Your task to perform on an android device: change the clock style Image 0: 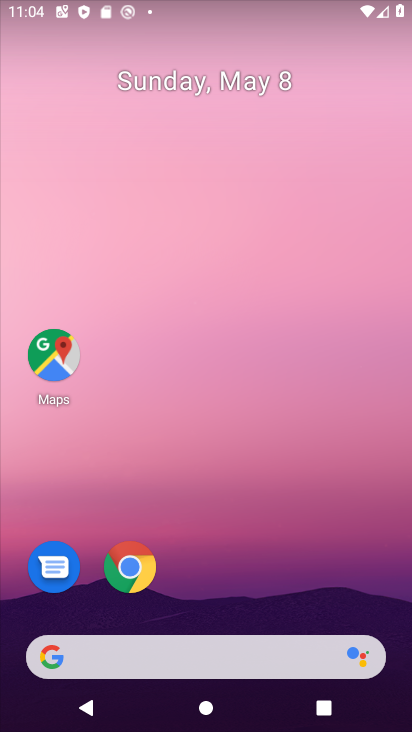
Step 0: press home button
Your task to perform on an android device: change the clock style Image 1: 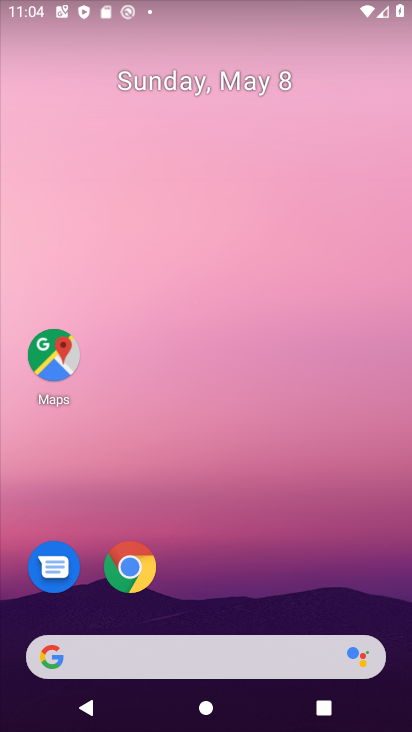
Step 1: drag from (222, 596) to (288, 66)
Your task to perform on an android device: change the clock style Image 2: 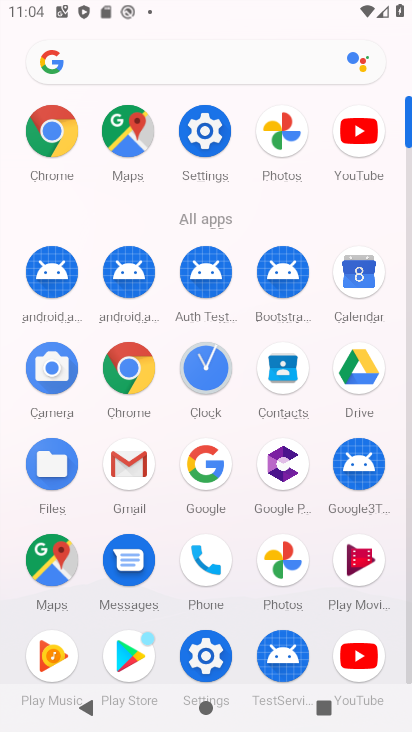
Step 2: click (203, 363)
Your task to perform on an android device: change the clock style Image 3: 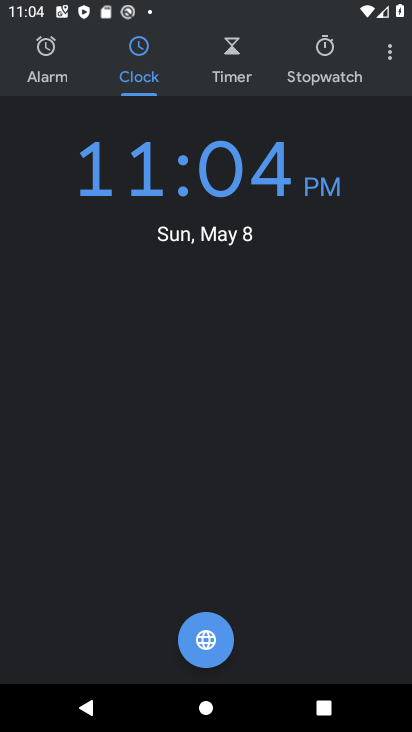
Step 3: click (385, 53)
Your task to perform on an android device: change the clock style Image 4: 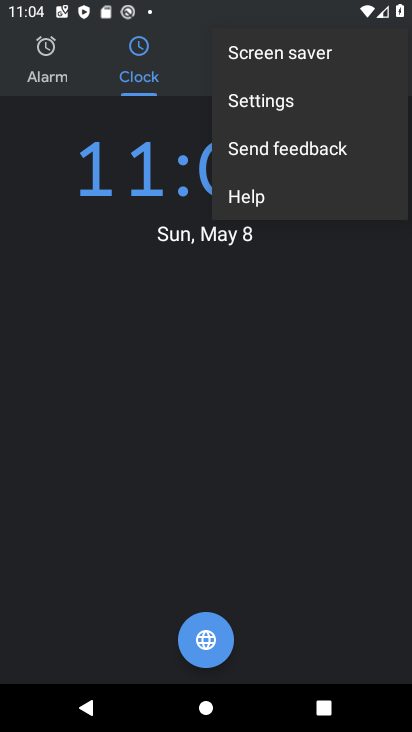
Step 4: click (298, 97)
Your task to perform on an android device: change the clock style Image 5: 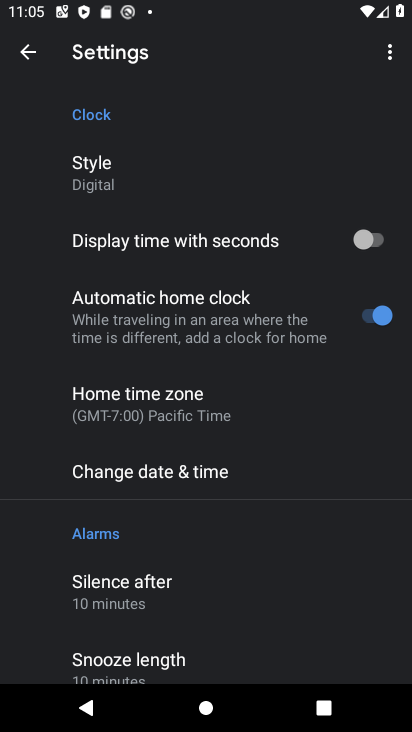
Step 5: click (131, 172)
Your task to perform on an android device: change the clock style Image 6: 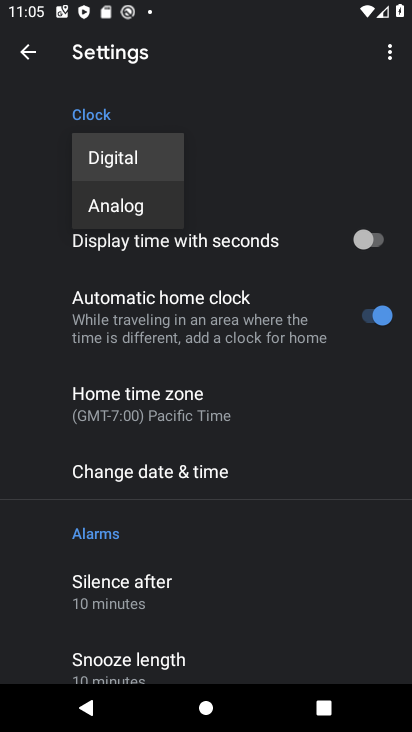
Step 6: click (152, 208)
Your task to perform on an android device: change the clock style Image 7: 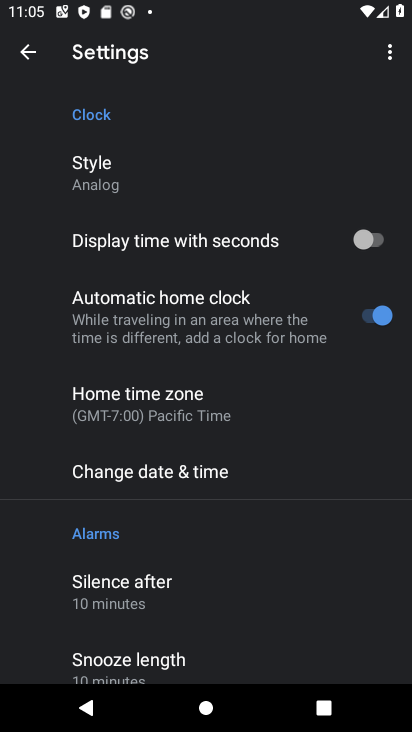
Step 7: task complete